Your task to perform on an android device: remove spam from my inbox in the gmail app Image 0: 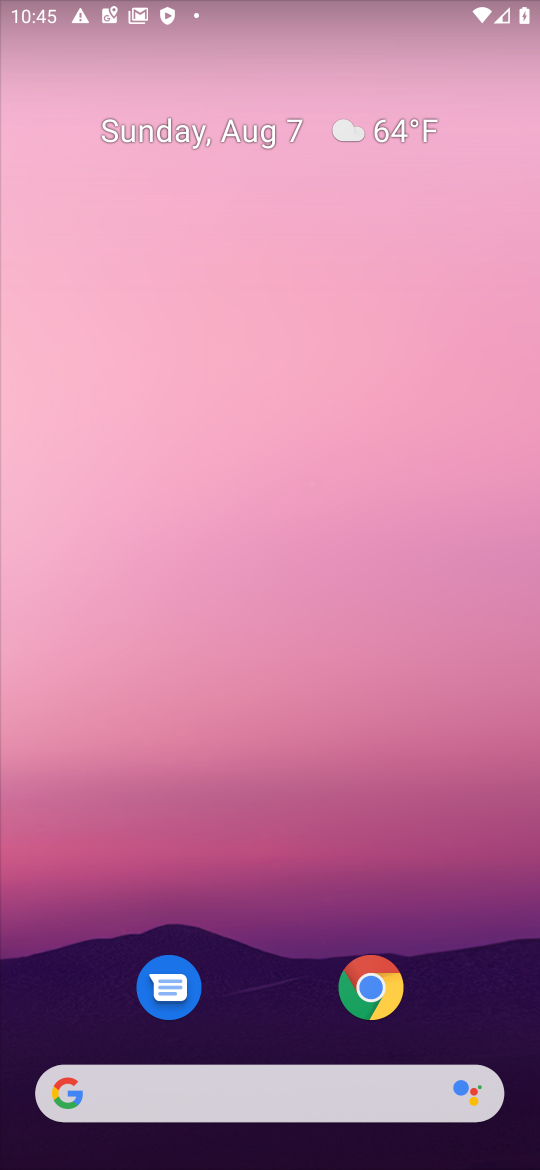
Step 0: drag from (277, 1018) to (274, 269)
Your task to perform on an android device: remove spam from my inbox in the gmail app Image 1: 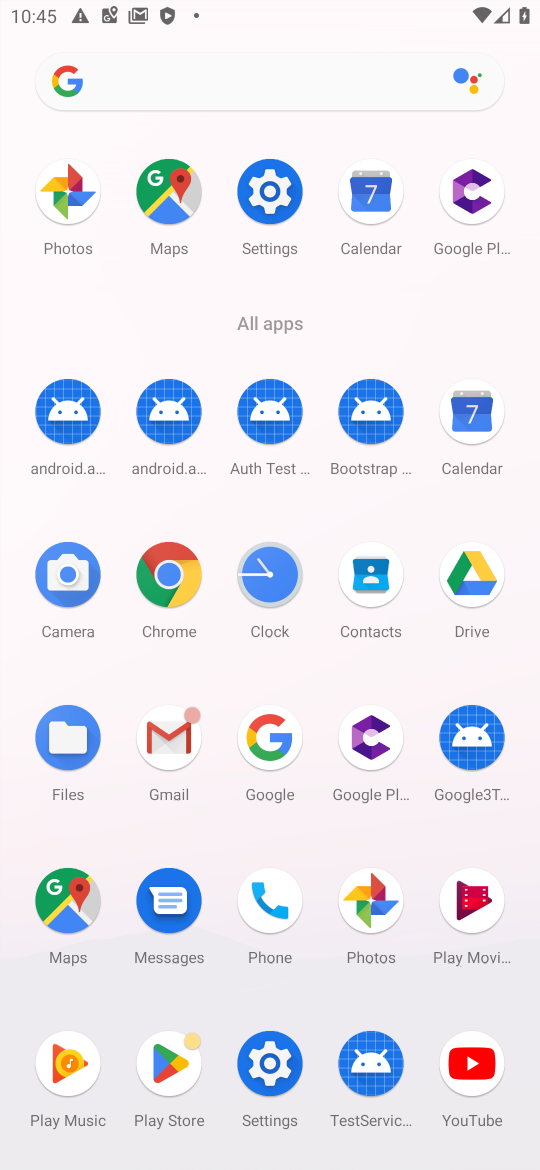
Step 1: click (169, 738)
Your task to perform on an android device: remove spam from my inbox in the gmail app Image 2: 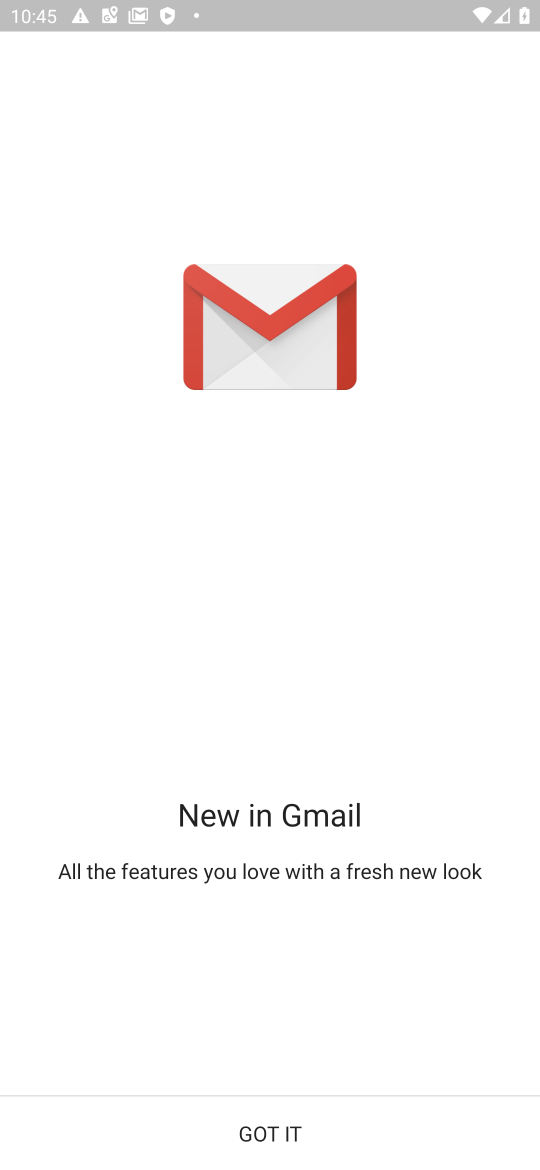
Step 2: click (227, 1144)
Your task to perform on an android device: remove spam from my inbox in the gmail app Image 3: 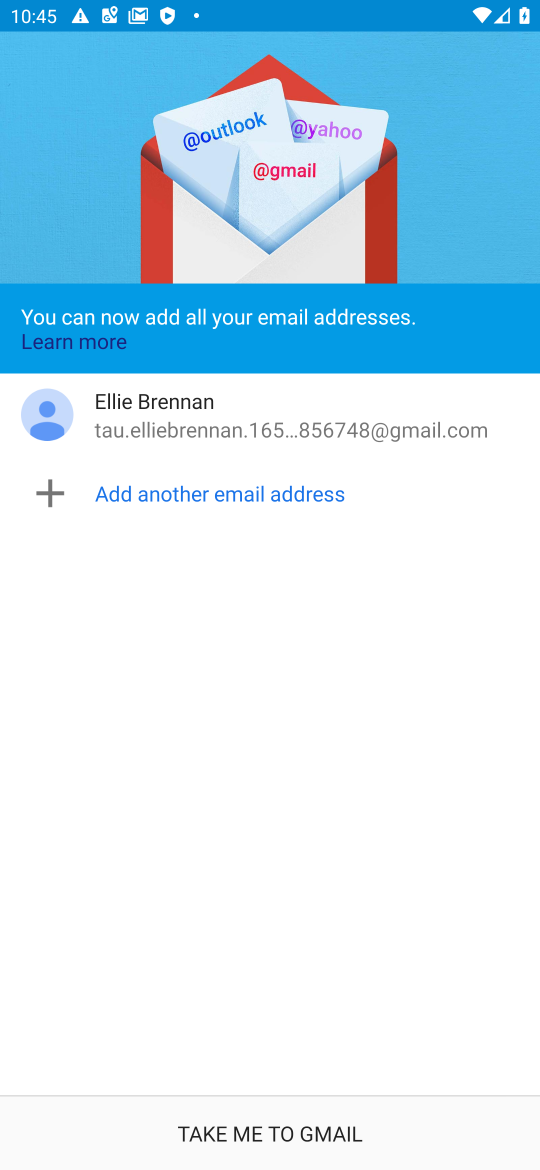
Step 3: click (271, 1139)
Your task to perform on an android device: remove spam from my inbox in the gmail app Image 4: 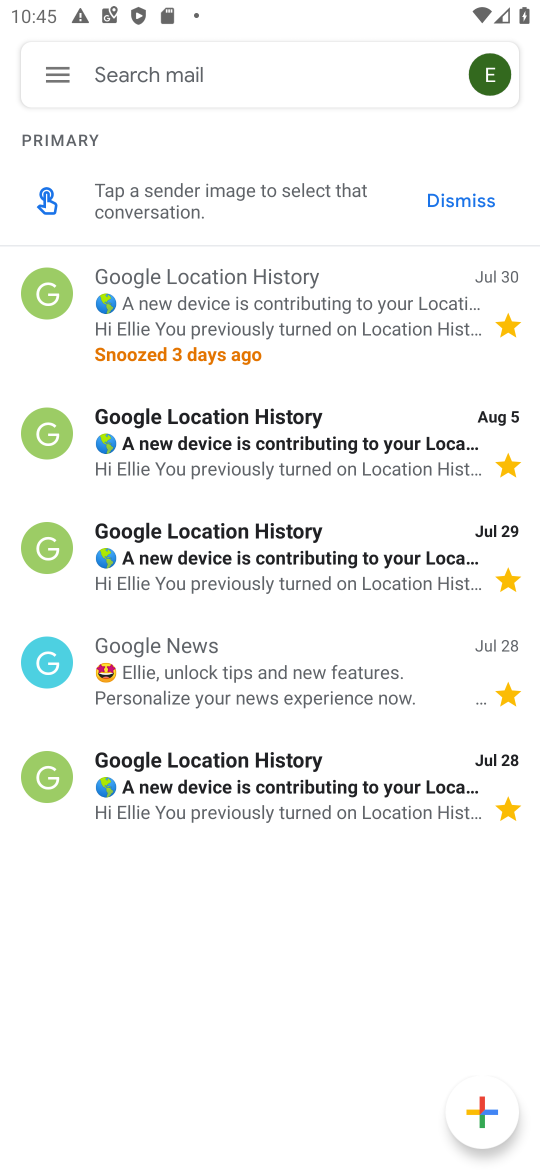
Step 4: click (45, 80)
Your task to perform on an android device: remove spam from my inbox in the gmail app Image 5: 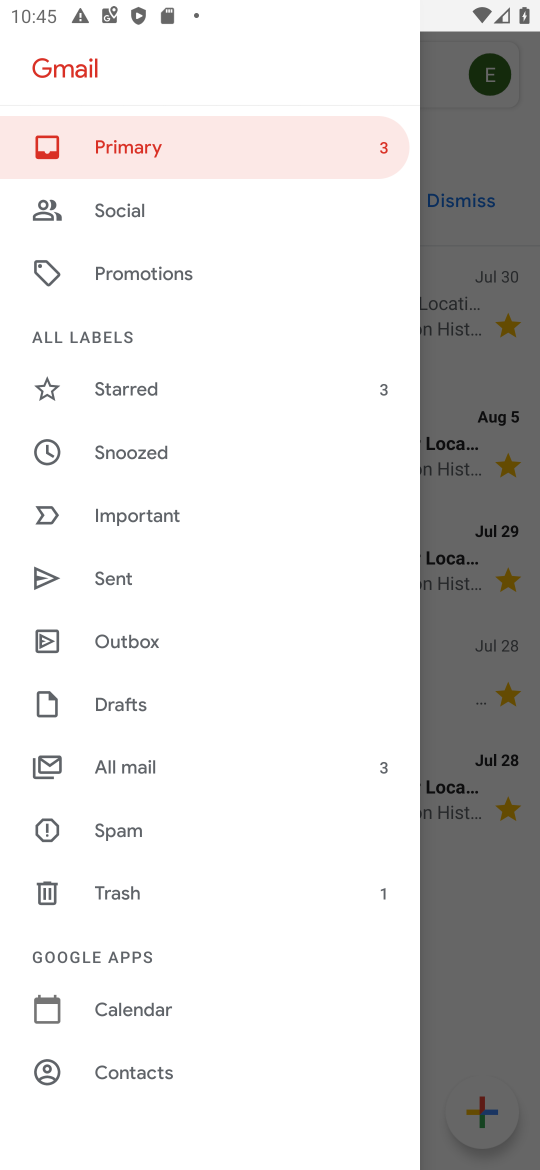
Step 5: click (129, 825)
Your task to perform on an android device: remove spam from my inbox in the gmail app Image 6: 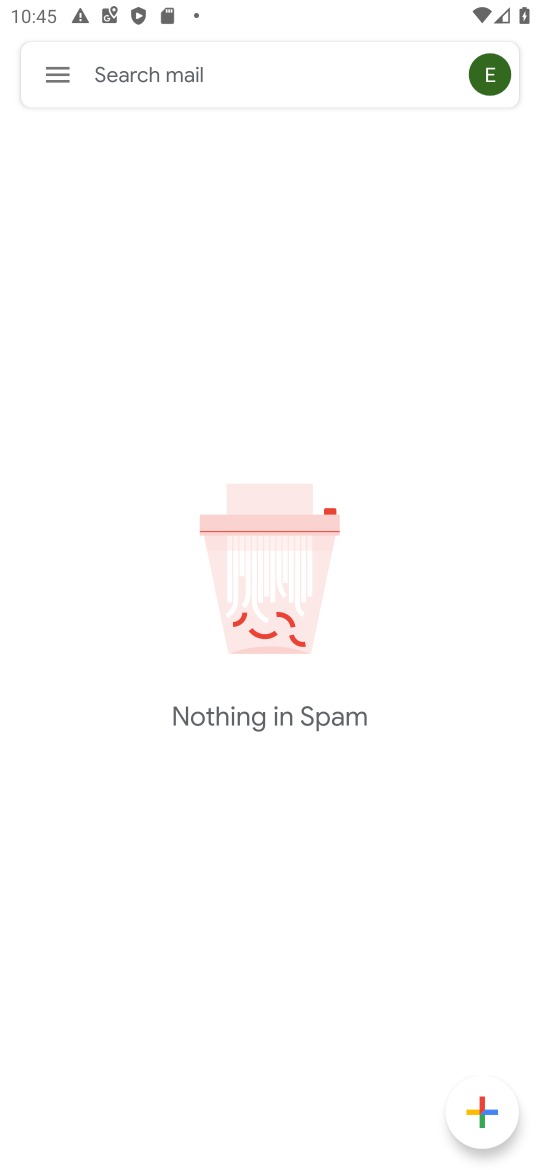
Step 6: task complete